Your task to perform on an android device: Open Google Chrome Image 0: 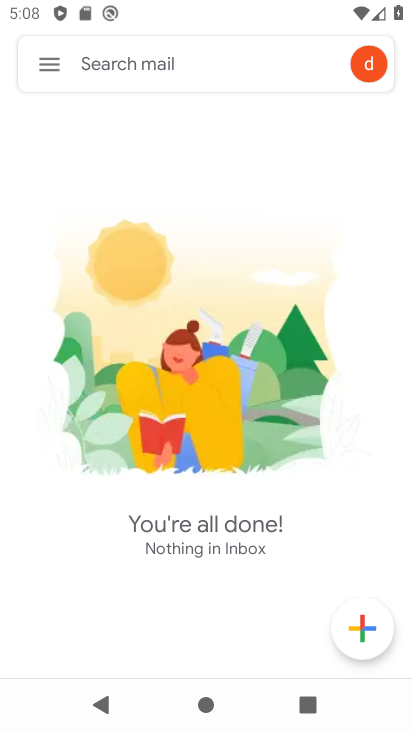
Step 0: press home button
Your task to perform on an android device: Open Google Chrome Image 1: 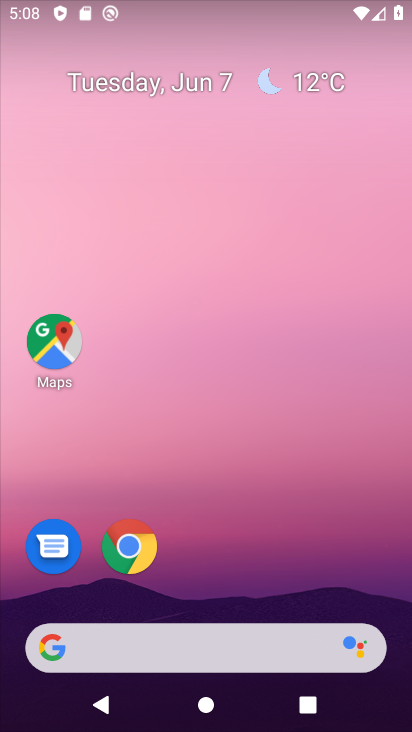
Step 1: click (134, 533)
Your task to perform on an android device: Open Google Chrome Image 2: 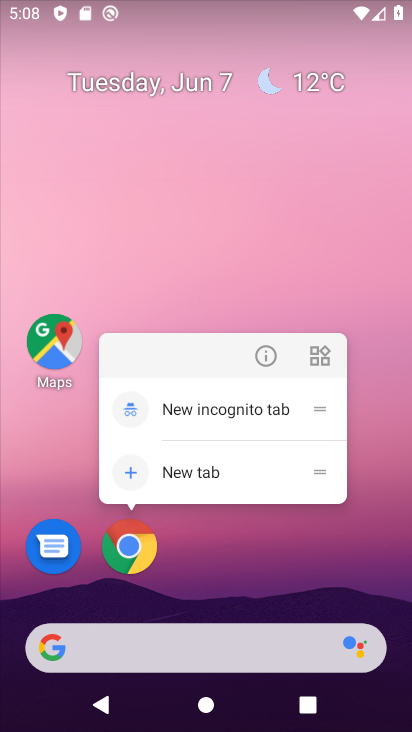
Step 2: click (129, 540)
Your task to perform on an android device: Open Google Chrome Image 3: 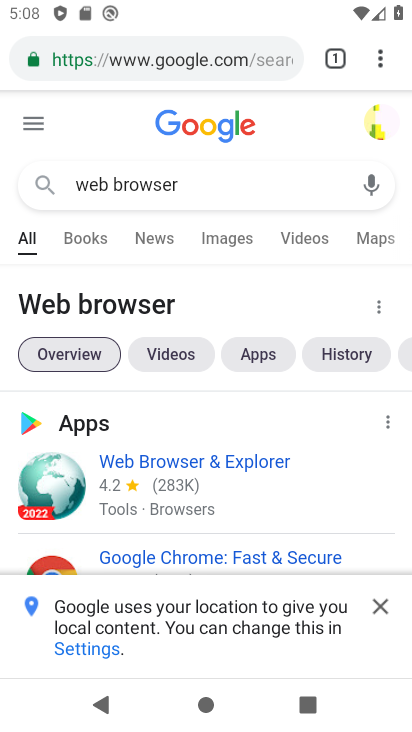
Step 3: task complete